Your task to perform on an android device: toggle data saver in the chrome app Image 0: 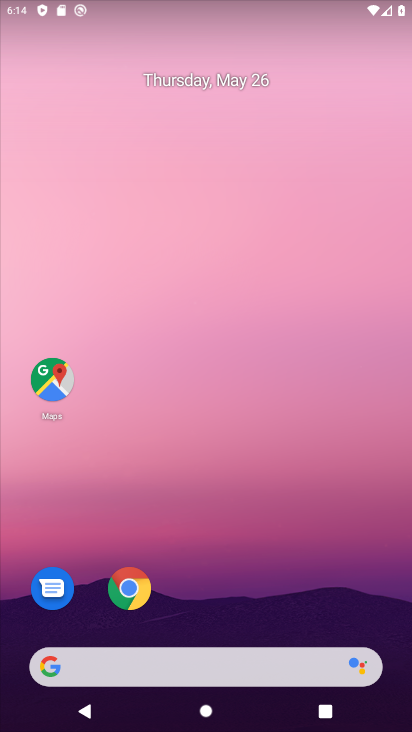
Step 0: drag from (388, 644) to (338, 96)
Your task to perform on an android device: toggle data saver in the chrome app Image 1: 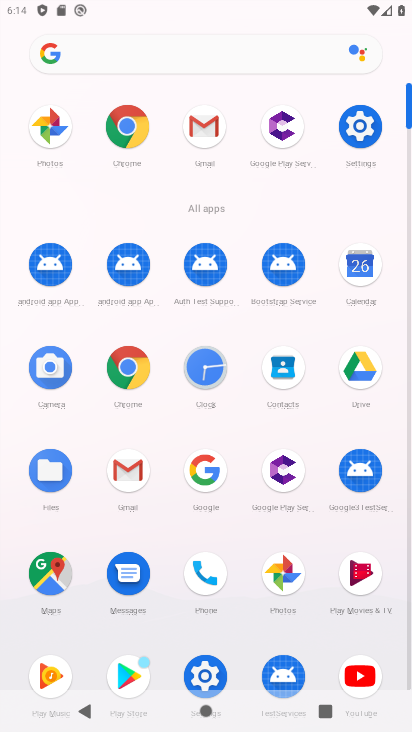
Step 1: click (134, 369)
Your task to perform on an android device: toggle data saver in the chrome app Image 2: 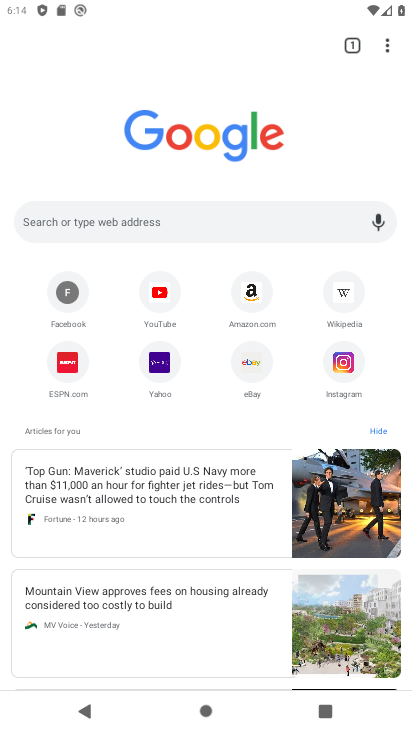
Step 2: click (388, 39)
Your task to perform on an android device: toggle data saver in the chrome app Image 3: 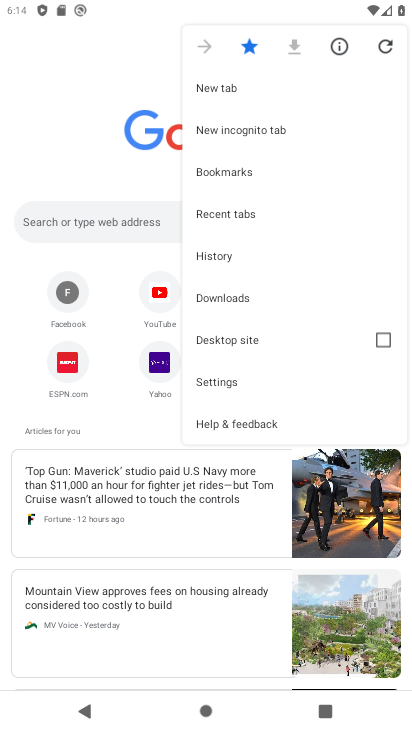
Step 3: click (208, 385)
Your task to perform on an android device: toggle data saver in the chrome app Image 4: 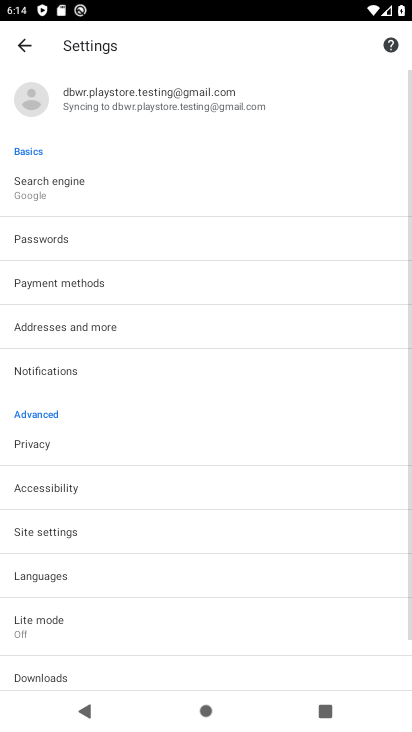
Step 4: click (106, 627)
Your task to perform on an android device: toggle data saver in the chrome app Image 5: 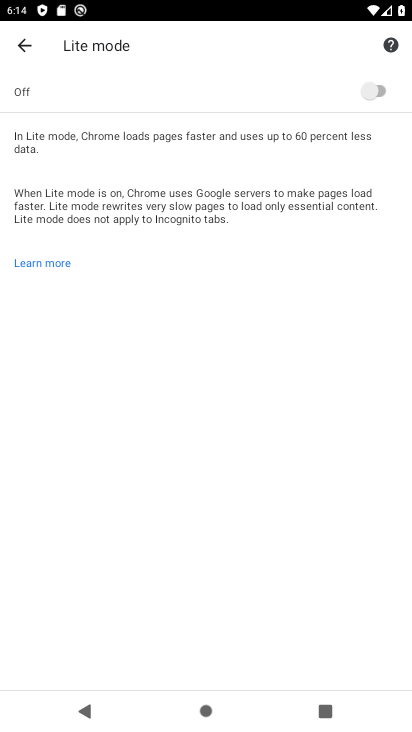
Step 5: click (379, 91)
Your task to perform on an android device: toggle data saver in the chrome app Image 6: 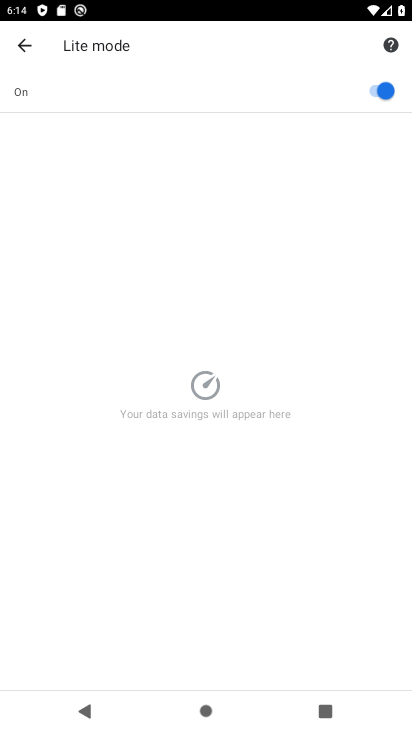
Step 6: task complete